Your task to perform on an android device: What's the weather? Image 0: 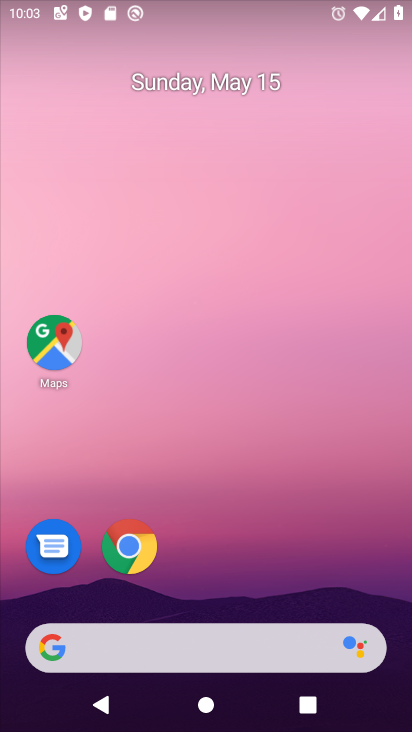
Step 0: click (108, 536)
Your task to perform on an android device: What's the weather? Image 1: 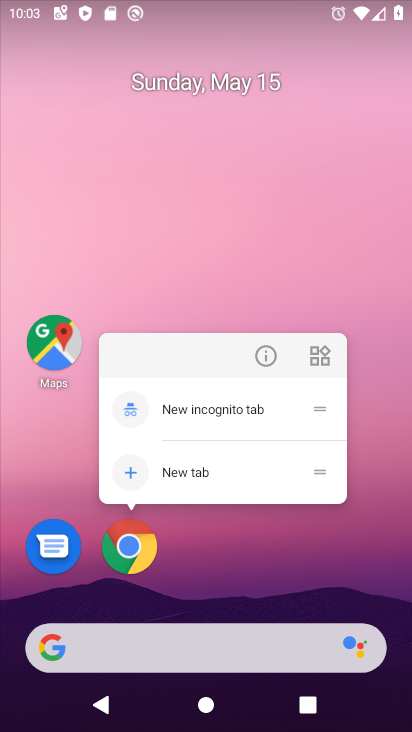
Step 1: click (120, 548)
Your task to perform on an android device: What's the weather? Image 2: 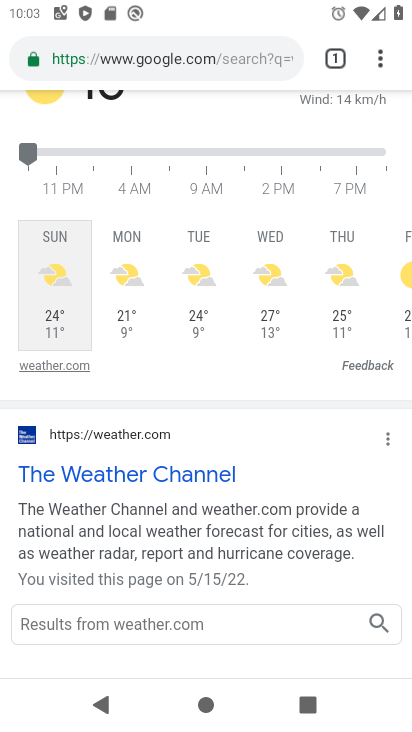
Step 2: task complete